Your task to perform on an android device: What is the recent news? Image 0: 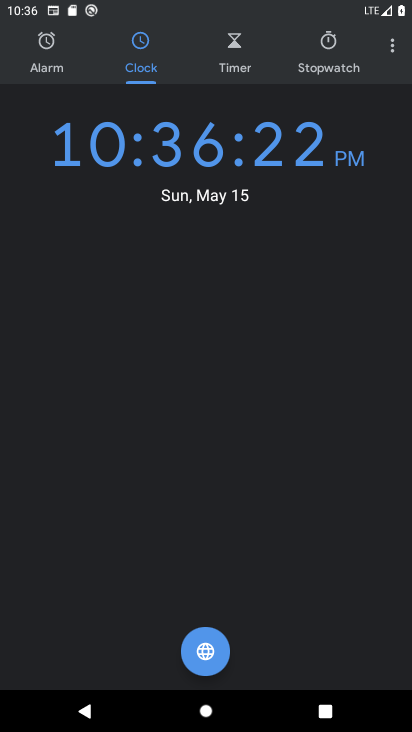
Step 0: drag from (243, 588) to (318, 242)
Your task to perform on an android device: What is the recent news? Image 1: 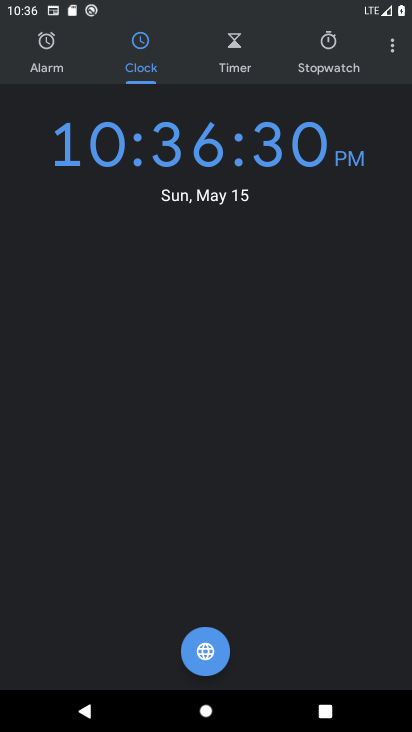
Step 1: press home button
Your task to perform on an android device: What is the recent news? Image 2: 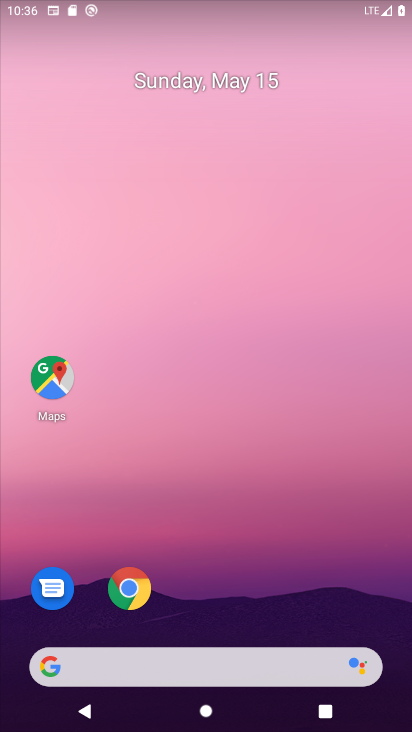
Step 2: drag from (217, 587) to (299, 48)
Your task to perform on an android device: What is the recent news? Image 3: 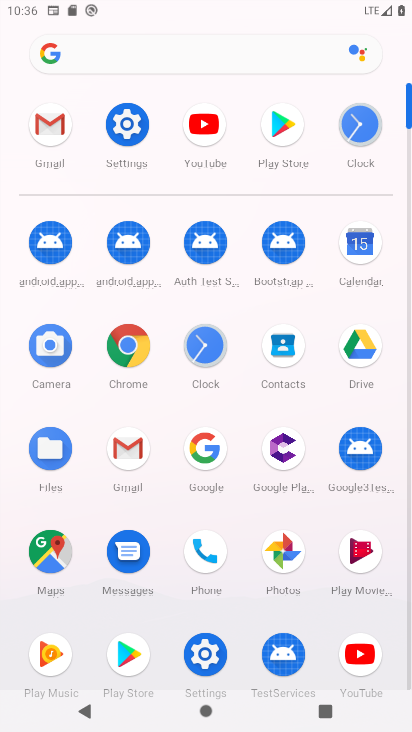
Step 3: click (125, 352)
Your task to perform on an android device: What is the recent news? Image 4: 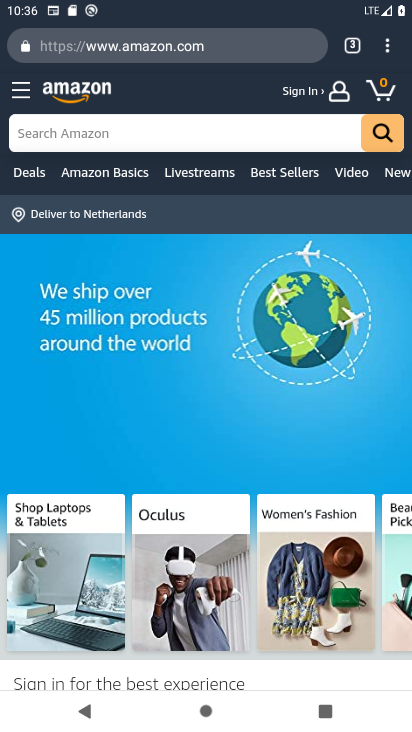
Step 4: click (388, 46)
Your task to perform on an android device: What is the recent news? Image 5: 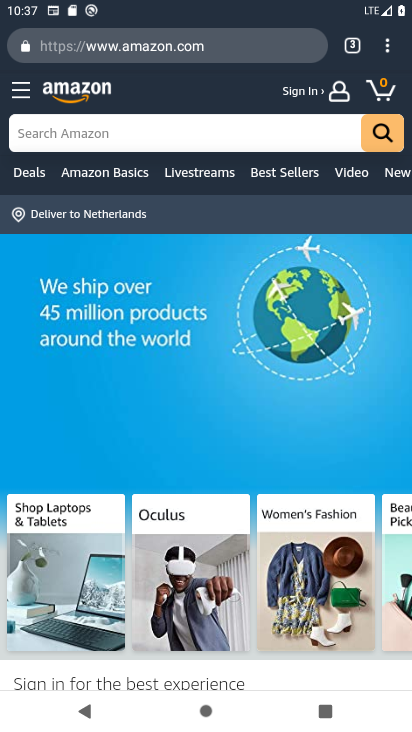
Step 5: click (393, 47)
Your task to perform on an android device: What is the recent news? Image 6: 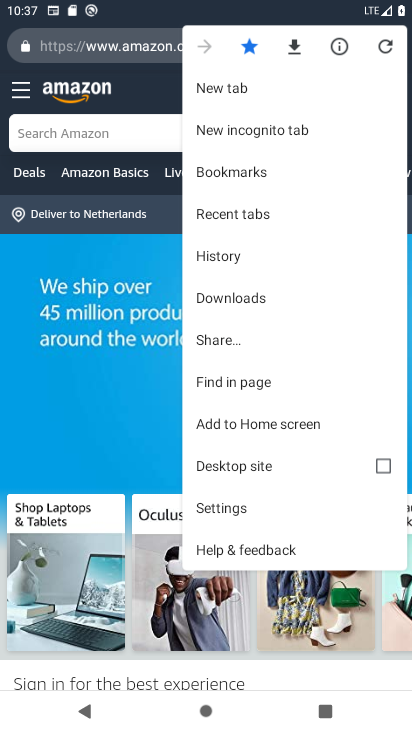
Step 6: click (243, 93)
Your task to perform on an android device: What is the recent news? Image 7: 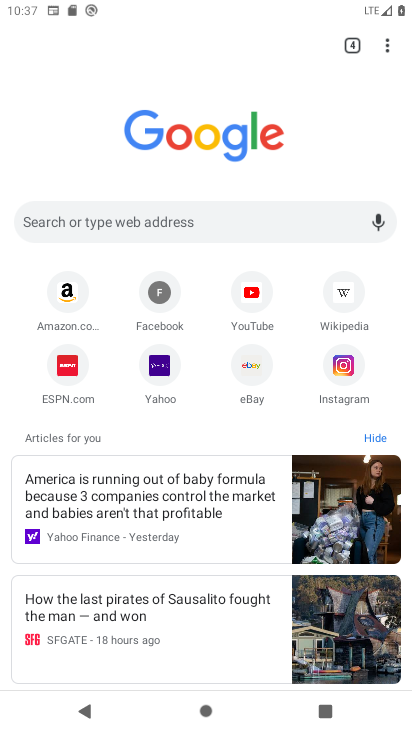
Step 7: click (228, 228)
Your task to perform on an android device: What is the recent news? Image 8: 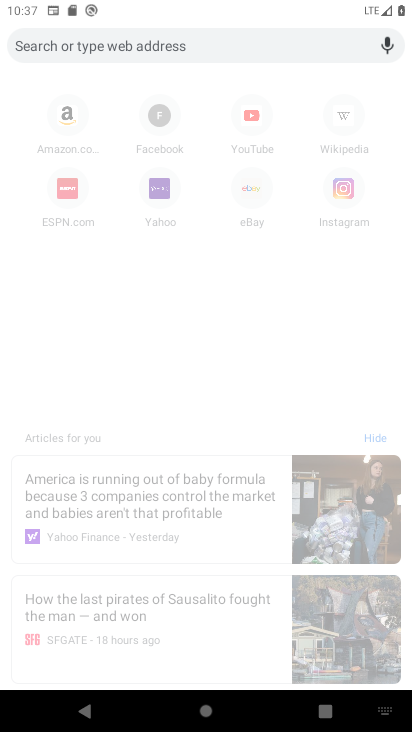
Step 8: type "recent news"
Your task to perform on an android device: What is the recent news? Image 9: 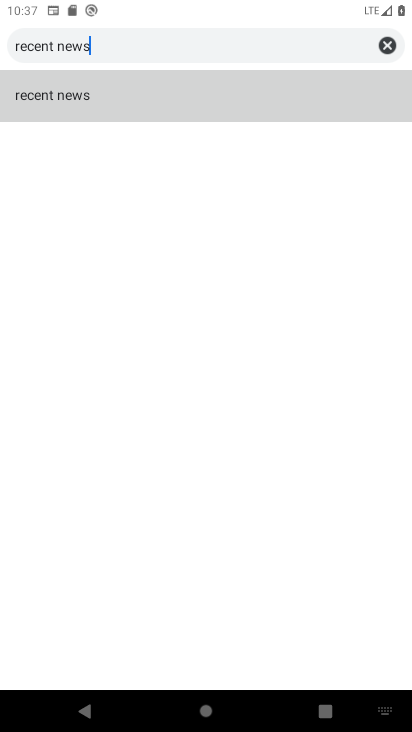
Step 9: click (72, 89)
Your task to perform on an android device: What is the recent news? Image 10: 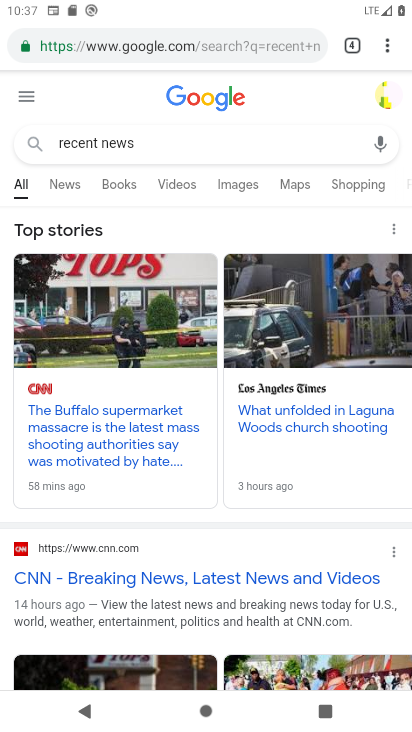
Step 10: click (63, 184)
Your task to perform on an android device: What is the recent news? Image 11: 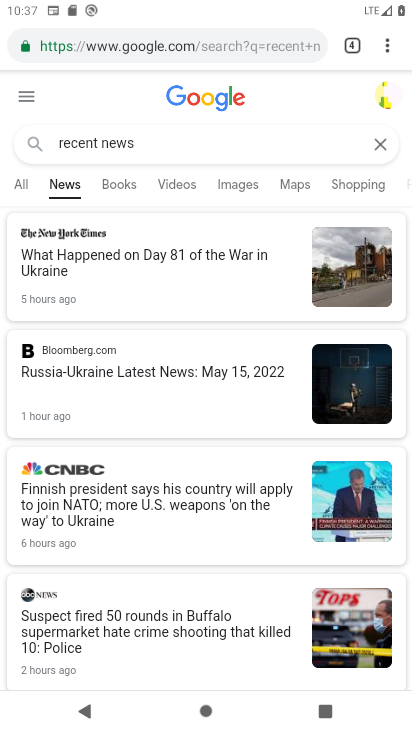
Step 11: task complete